Your task to perform on an android device: Open Google Maps Image 0: 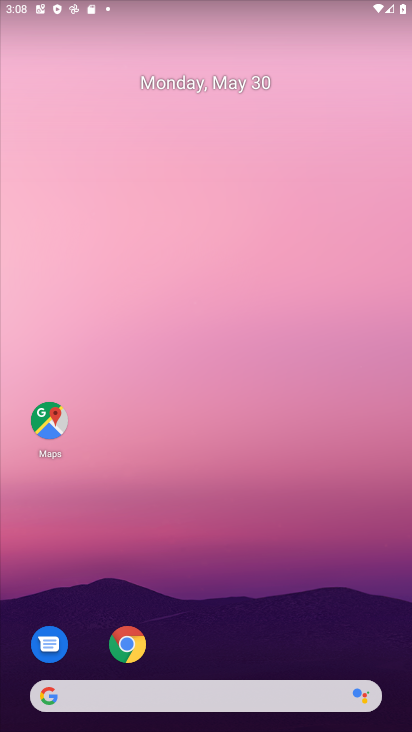
Step 0: drag from (242, 644) to (246, 182)
Your task to perform on an android device: Open Google Maps Image 1: 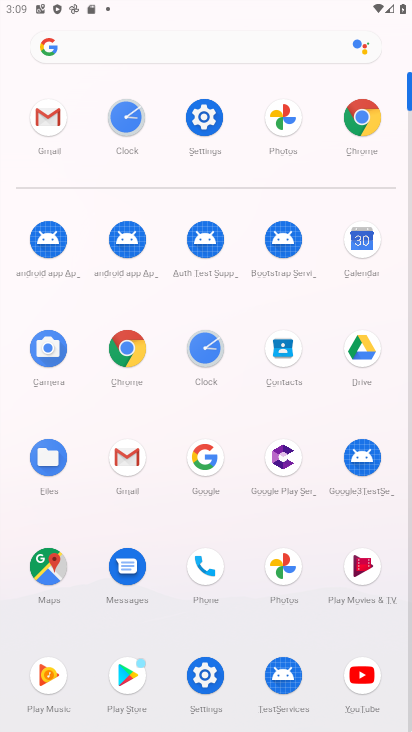
Step 1: click (29, 565)
Your task to perform on an android device: Open Google Maps Image 2: 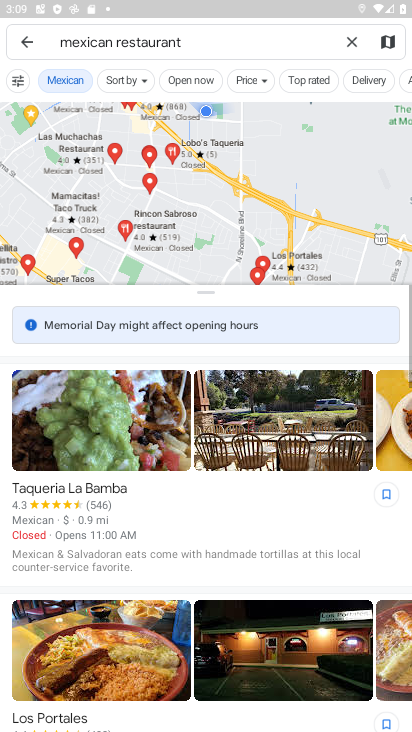
Step 2: task complete